Your task to perform on an android device: open app "ZOOM Cloud Meetings" (install if not already installed), go to login, and select forgot password Image 0: 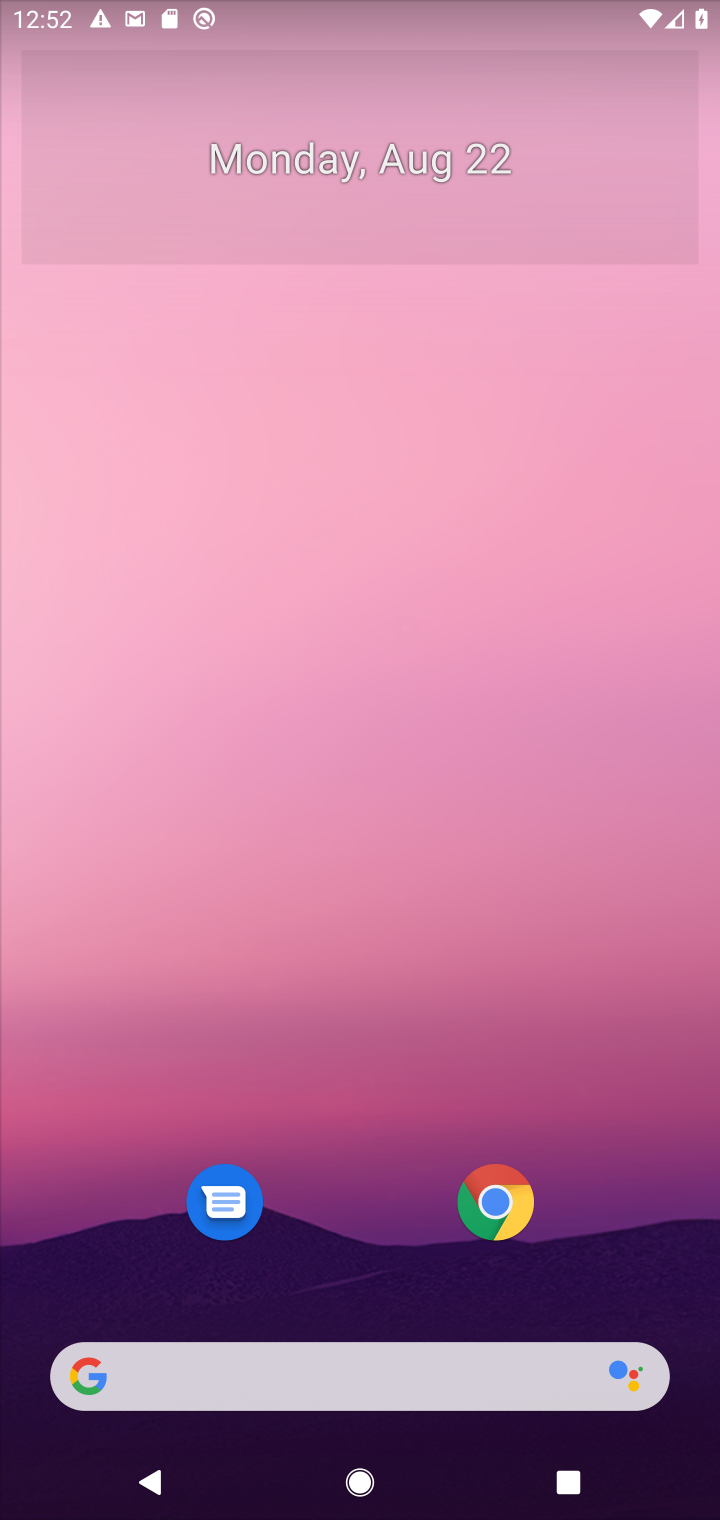
Step 0: drag from (436, 565) to (428, 247)
Your task to perform on an android device: open app "ZOOM Cloud Meetings" (install if not already installed), go to login, and select forgot password Image 1: 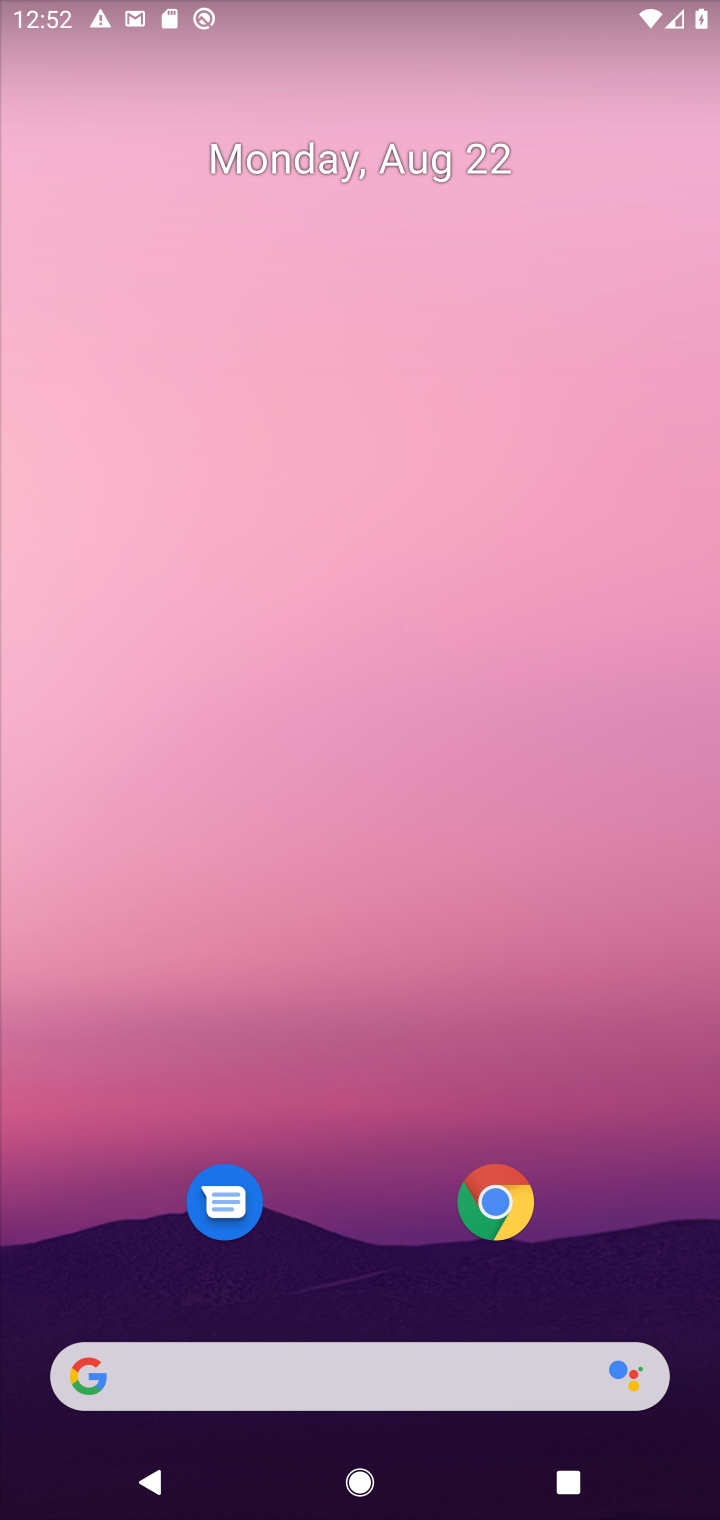
Step 1: drag from (354, 1326) to (409, 243)
Your task to perform on an android device: open app "ZOOM Cloud Meetings" (install if not already installed), go to login, and select forgot password Image 2: 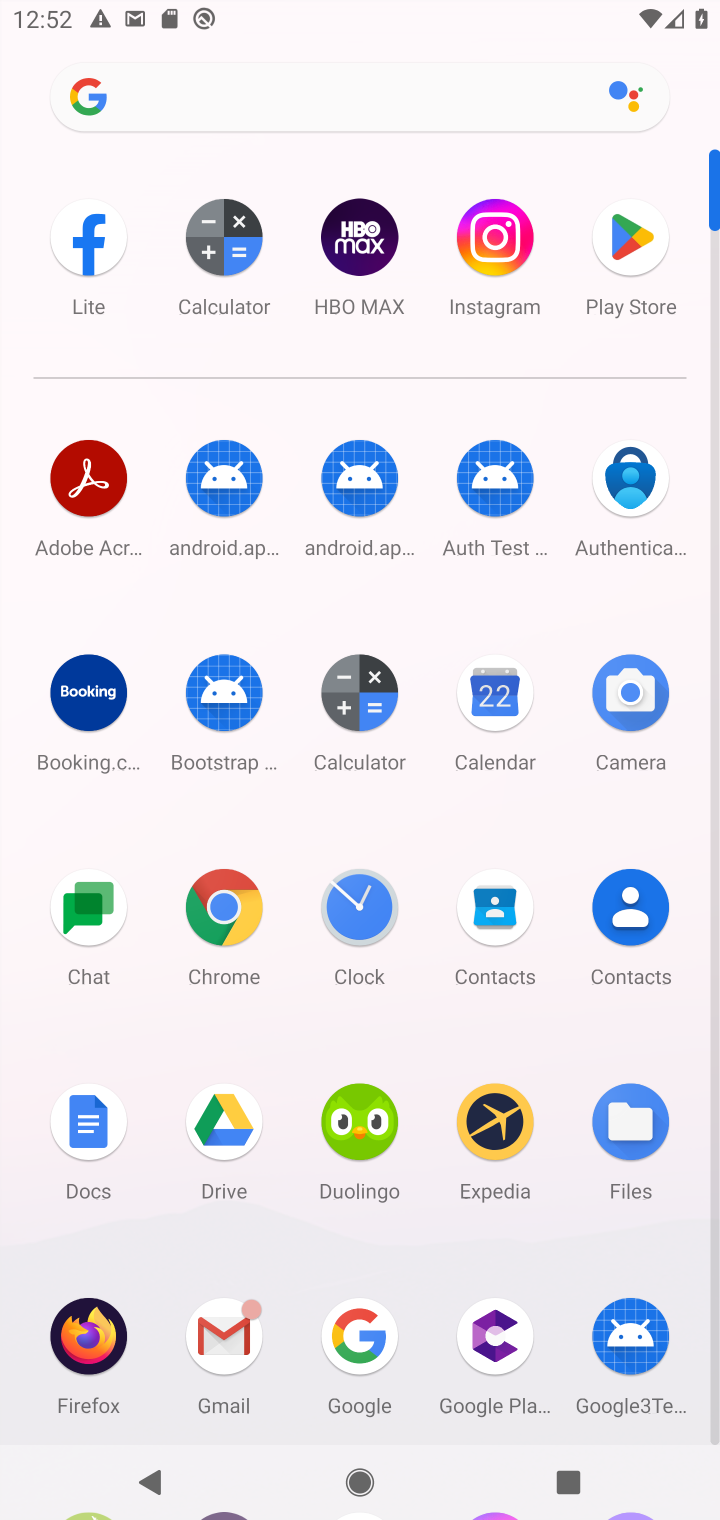
Step 2: click (629, 252)
Your task to perform on an android device: open app "ZOOM Cloud Meetings" (install if not already installed), go to login, and select forgot password Image 3: 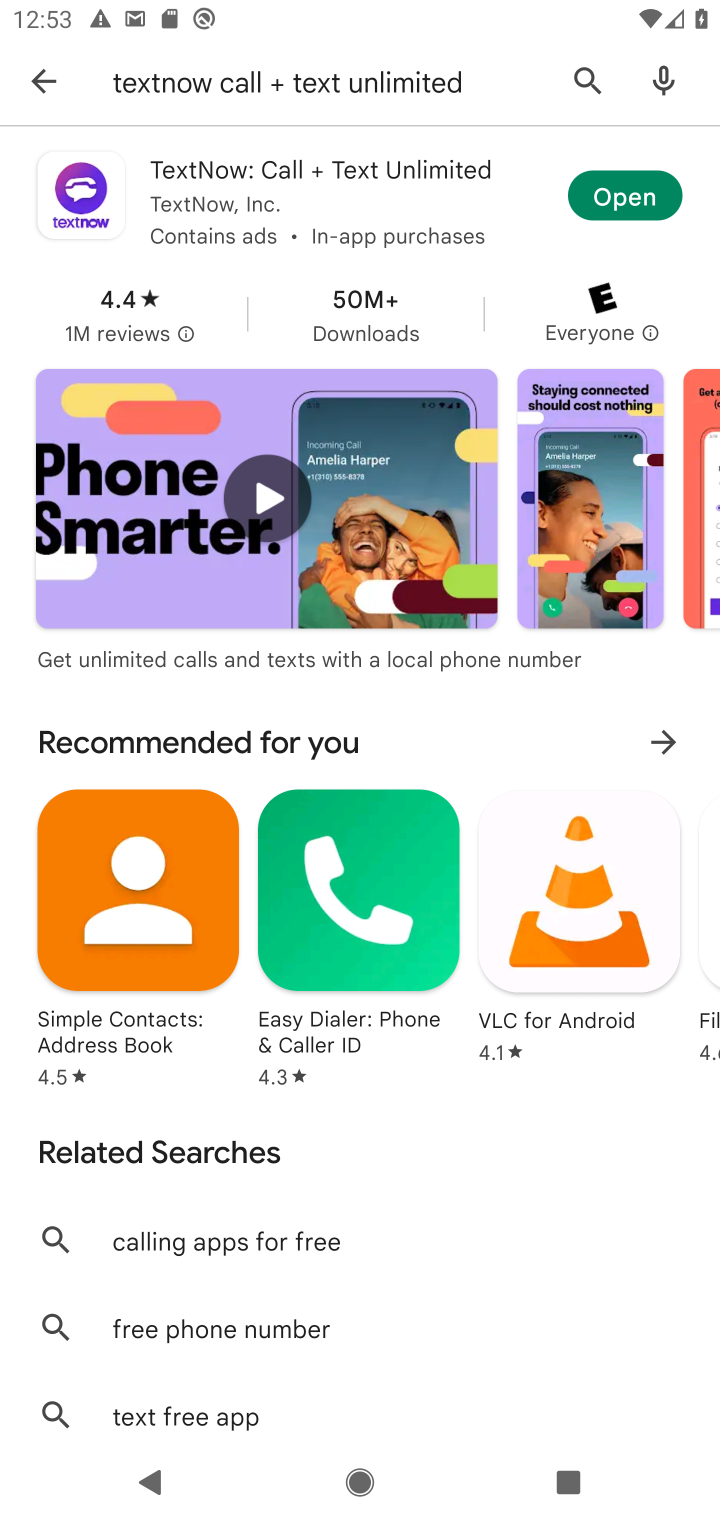
Step 3: click (581, 70)
Your task to perform on an android device: open app "ZOOM Cloud Meetings" (install if not already installed), go to login, and select forgot password Image 4: 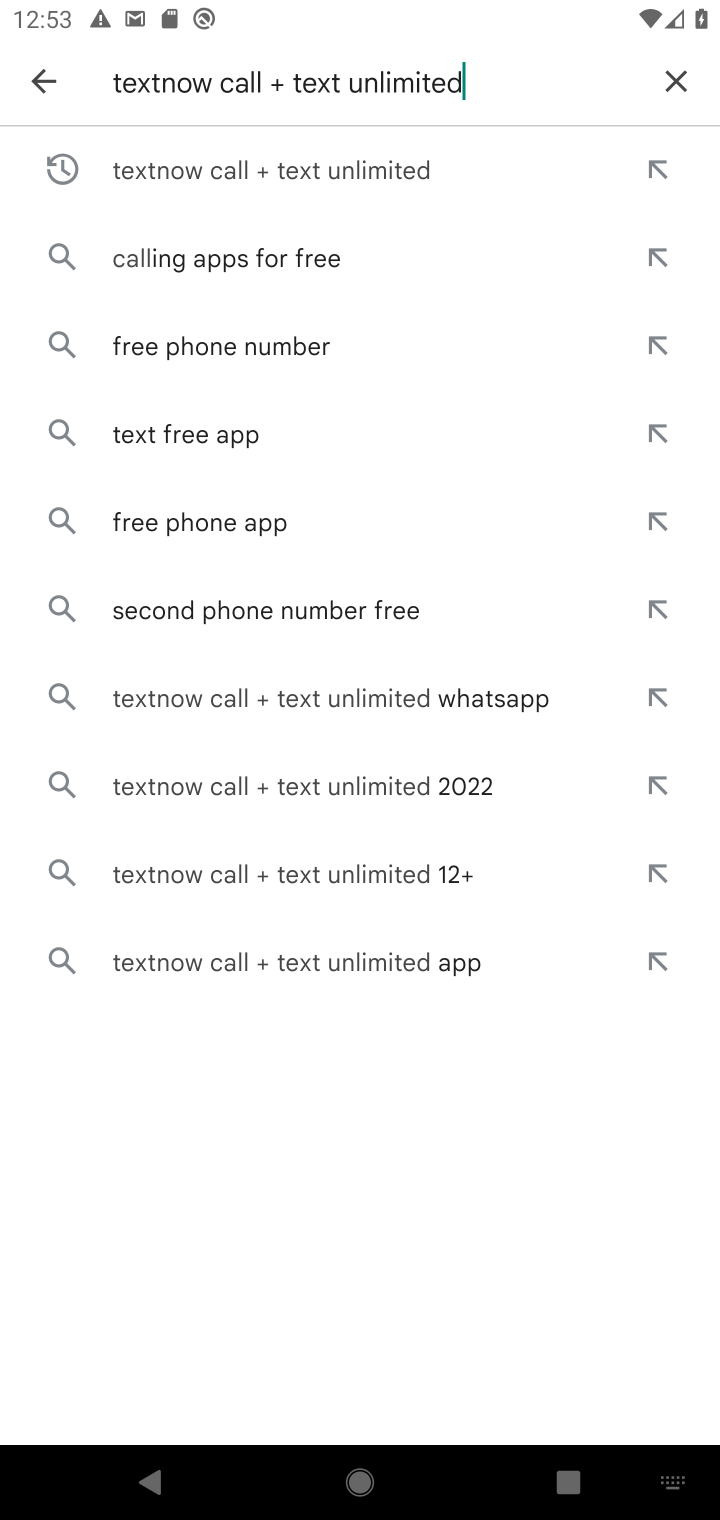
Step 4: click (664, 70)
Your task to perform on an android device: open app "ZOOM Cloud Meetings" (install if not already installed), go to login, and select forgot password Image 5: 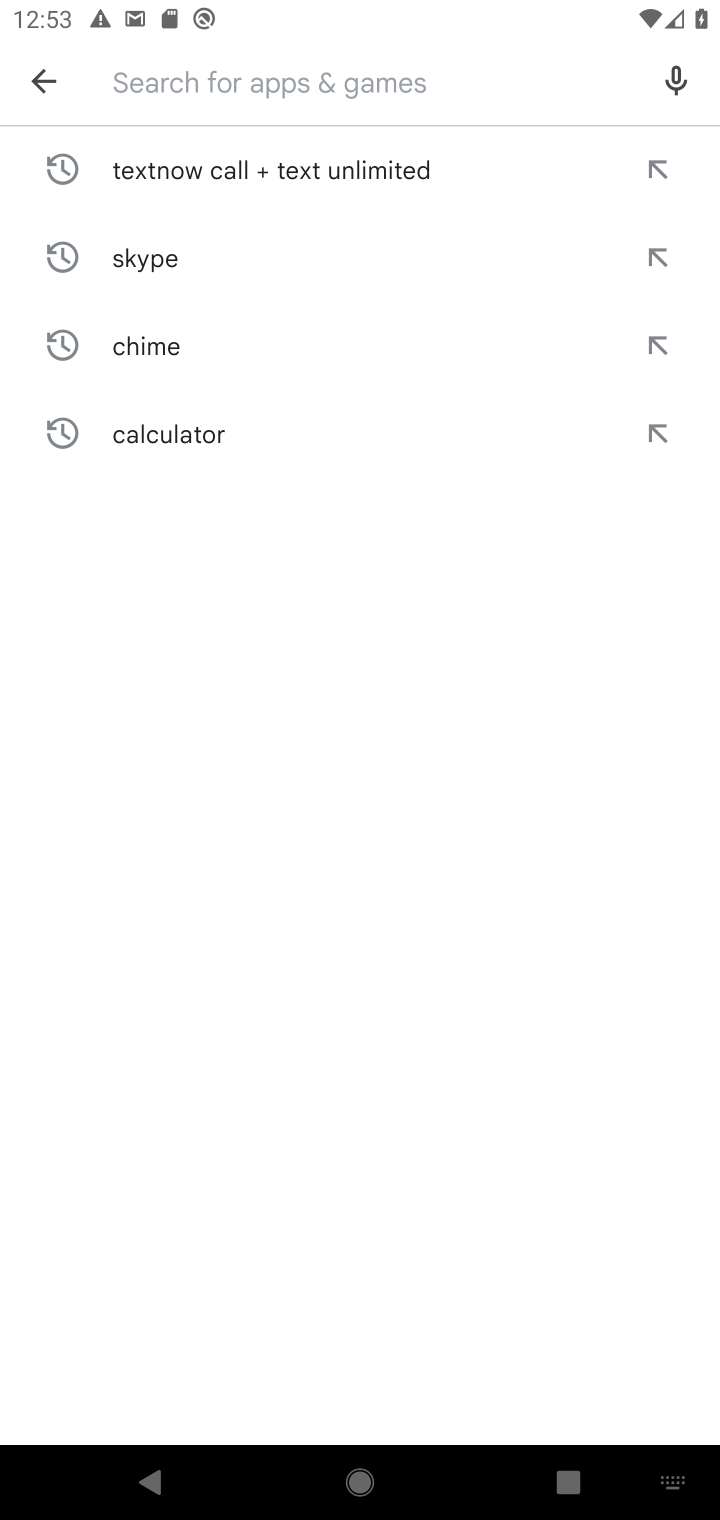
Step 5: type "ZOOM Cloud Meetings"
Your task to perform on an android device: open app "ZOOM Cloud Meetings" (install if not already installed), go to login, and select forgot password Image 6: 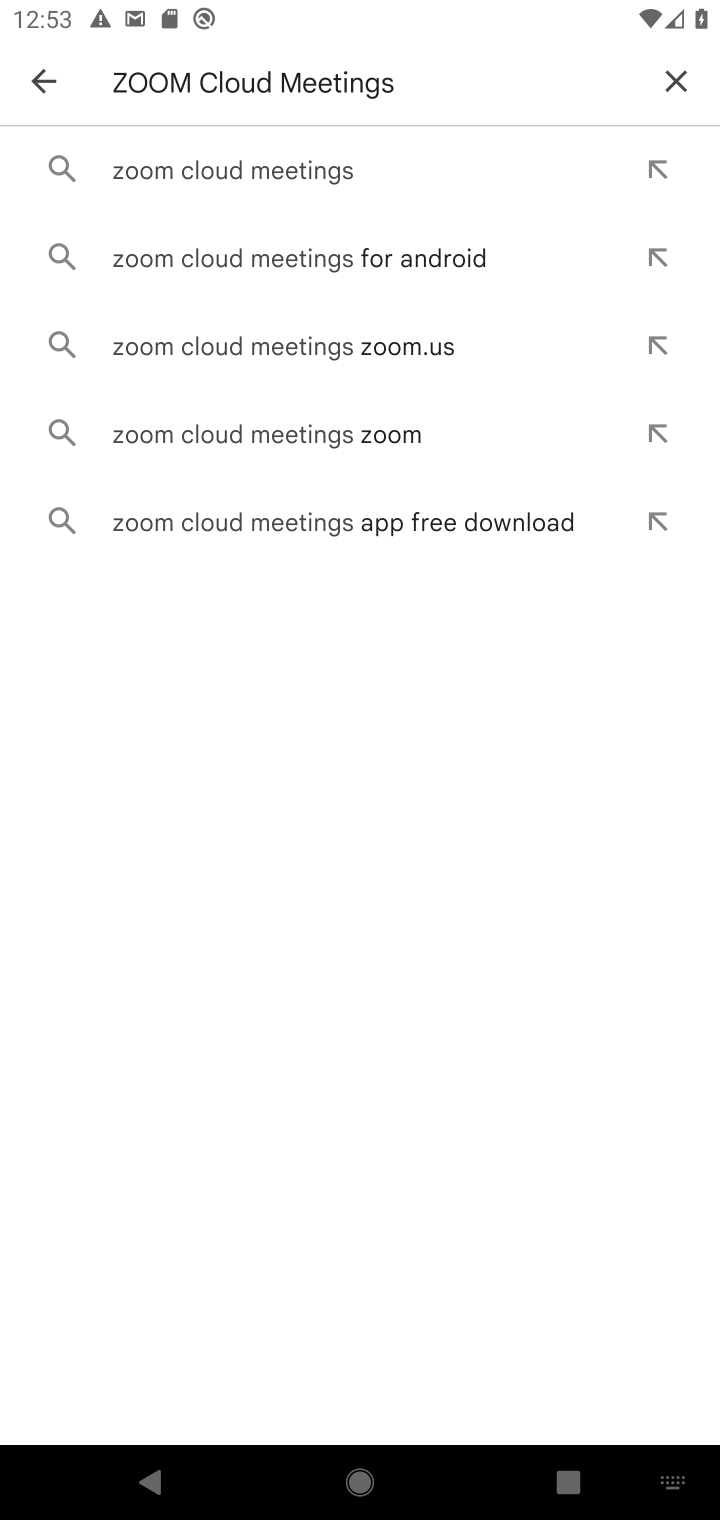
Step 6: click (287, 156)
Your task to perform on an android device: open app "ZOOM Cloud Meetings" (install if not already installed), go to login, and select forgot password Image 7: 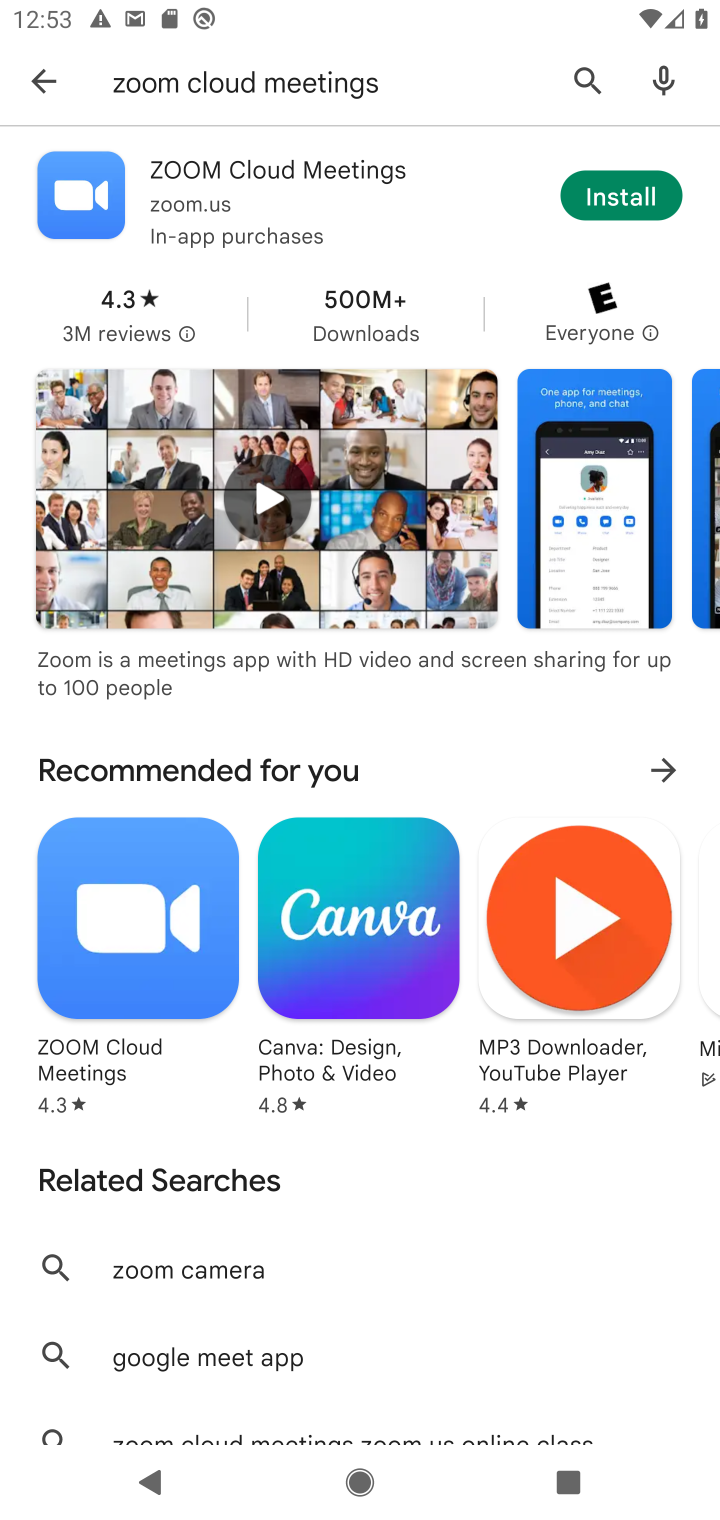
Step 7: click (619, 196)
Your task to perform on an android device: open app "ZOOM Cloud Meetings" (install if not already installed), go to login, and select forgot password Image 8: 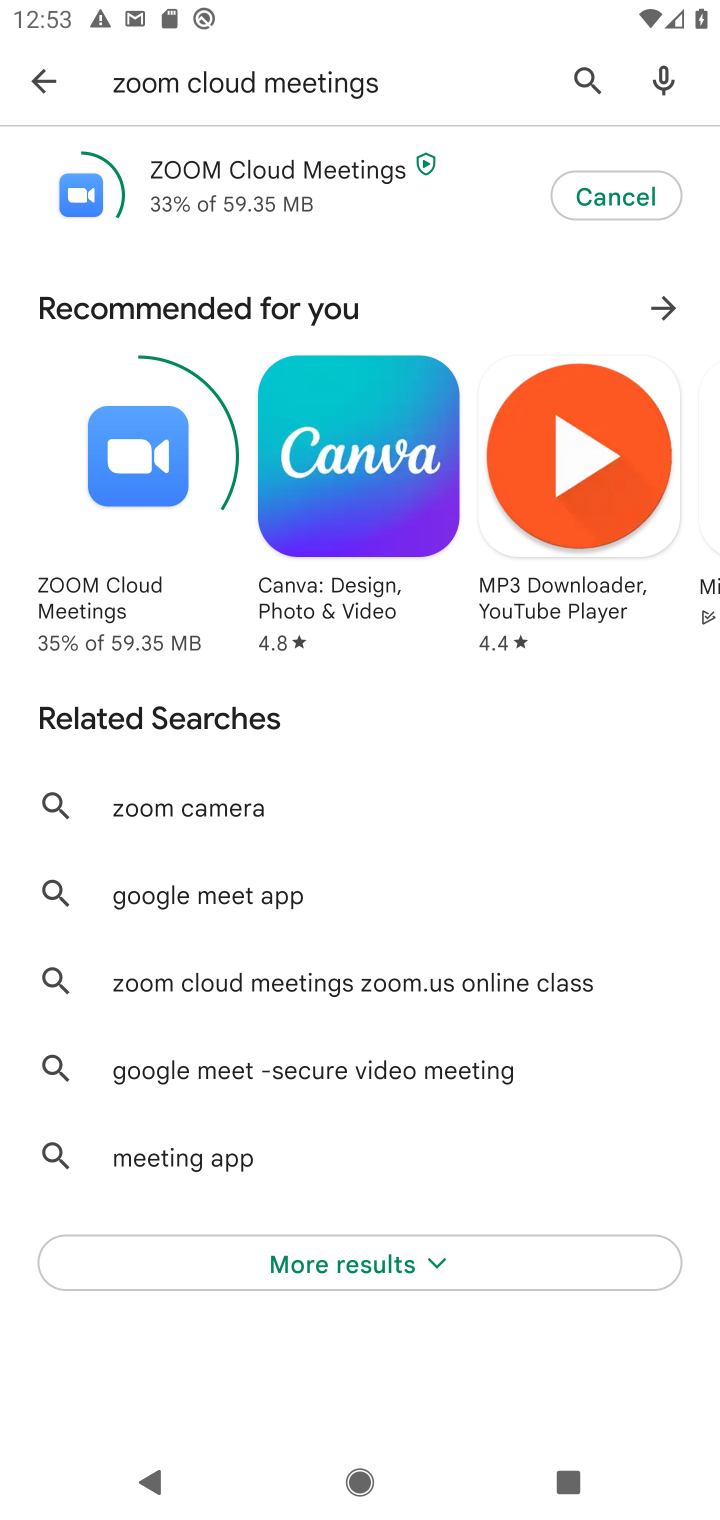
Step 8: click (619, 196)
Your task to perform on an android device: open app "ZOOM Cloud Meetings" (install if not already installed), go to login, and select forgot password Image 9: 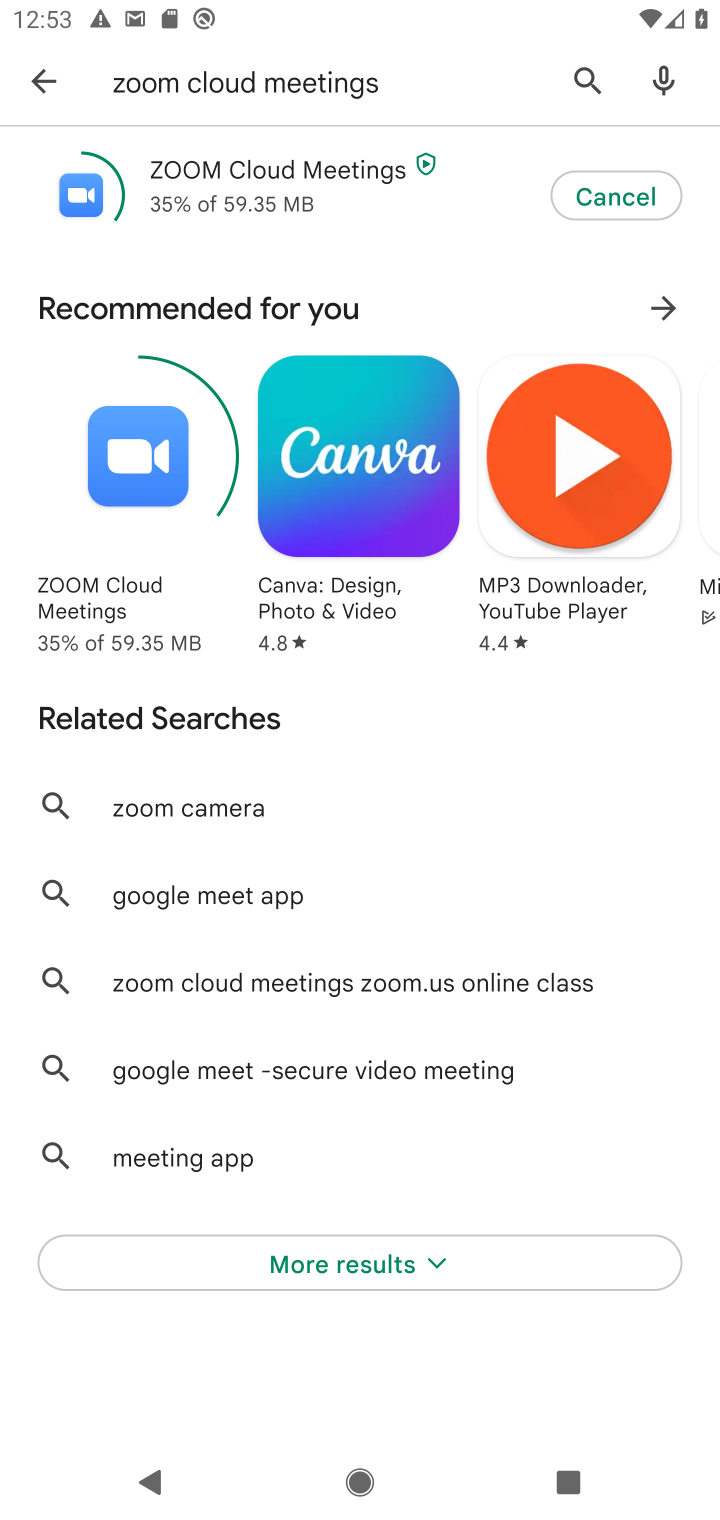
Step 9: click (619, 196)
Your task to perform on an android device: open app "ZOOM Cloud Meetings" (install if not already installed), go to login, and select forgot password Image 10: 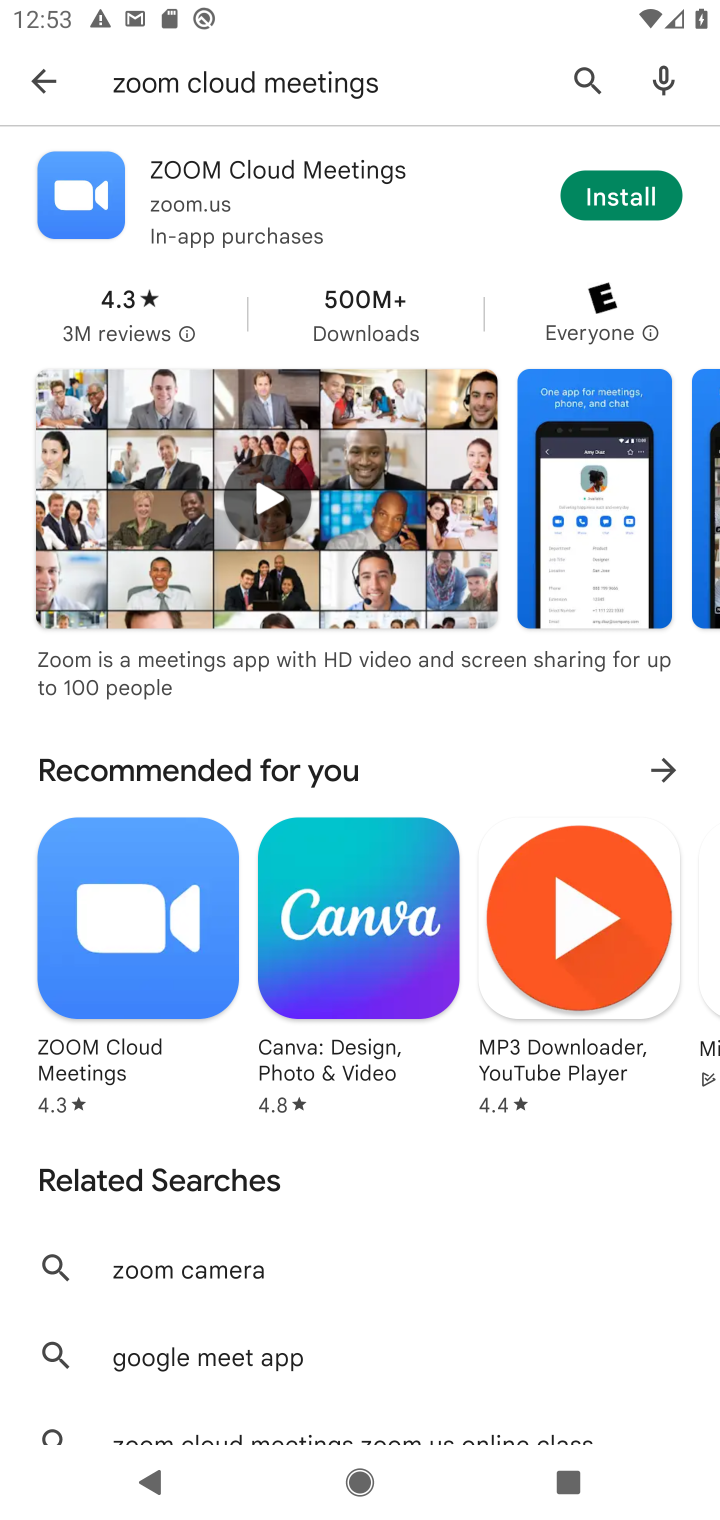
Step 10: click (619, 196)
Your task to perform on an android device: open app "ZOOM Cloud Meetings" (install if not already installed), go to login, and select forgot password Image 11: 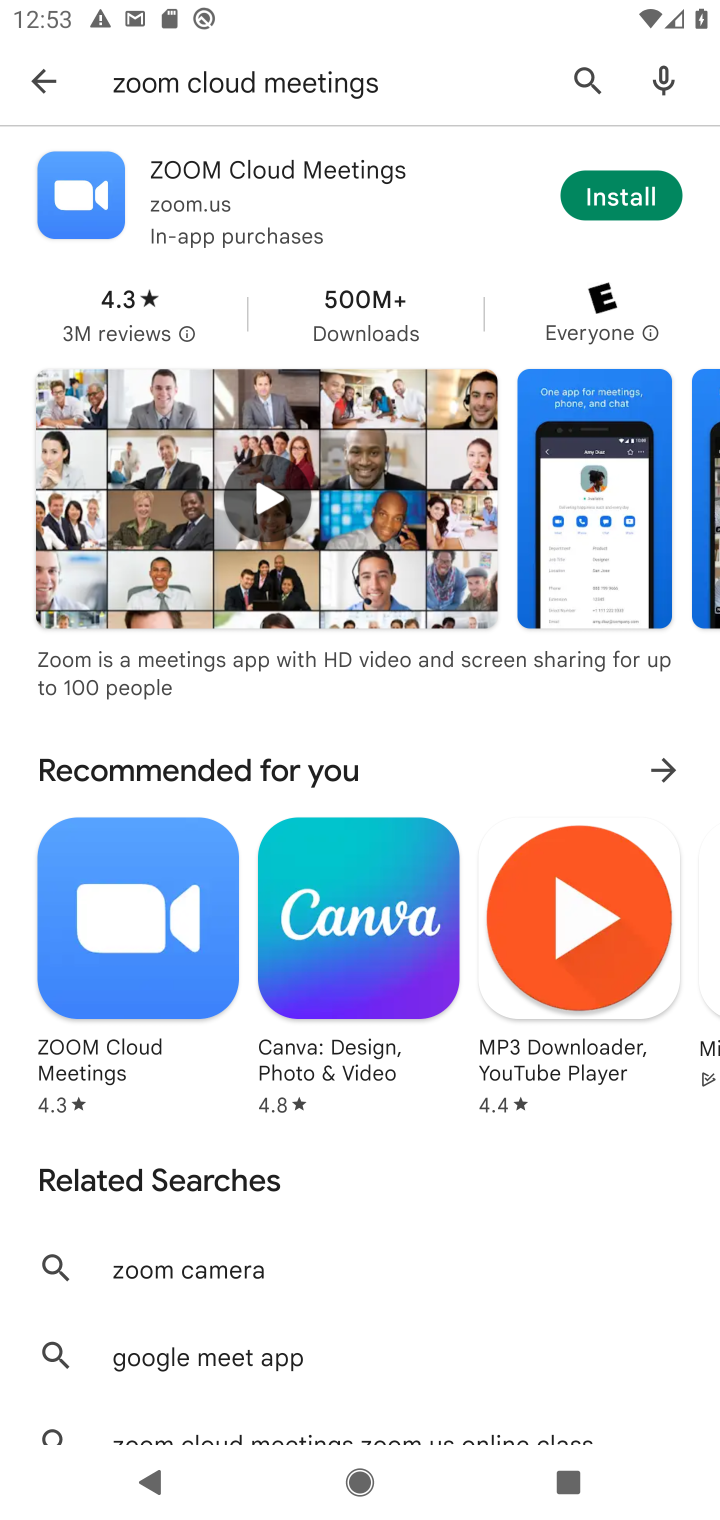
Step 11: click (619, 196)
Your task to perform on an android device: open app "ZOOM Cloud Meetings" (install if not already installed), go to login, and select forgot password Image 12: 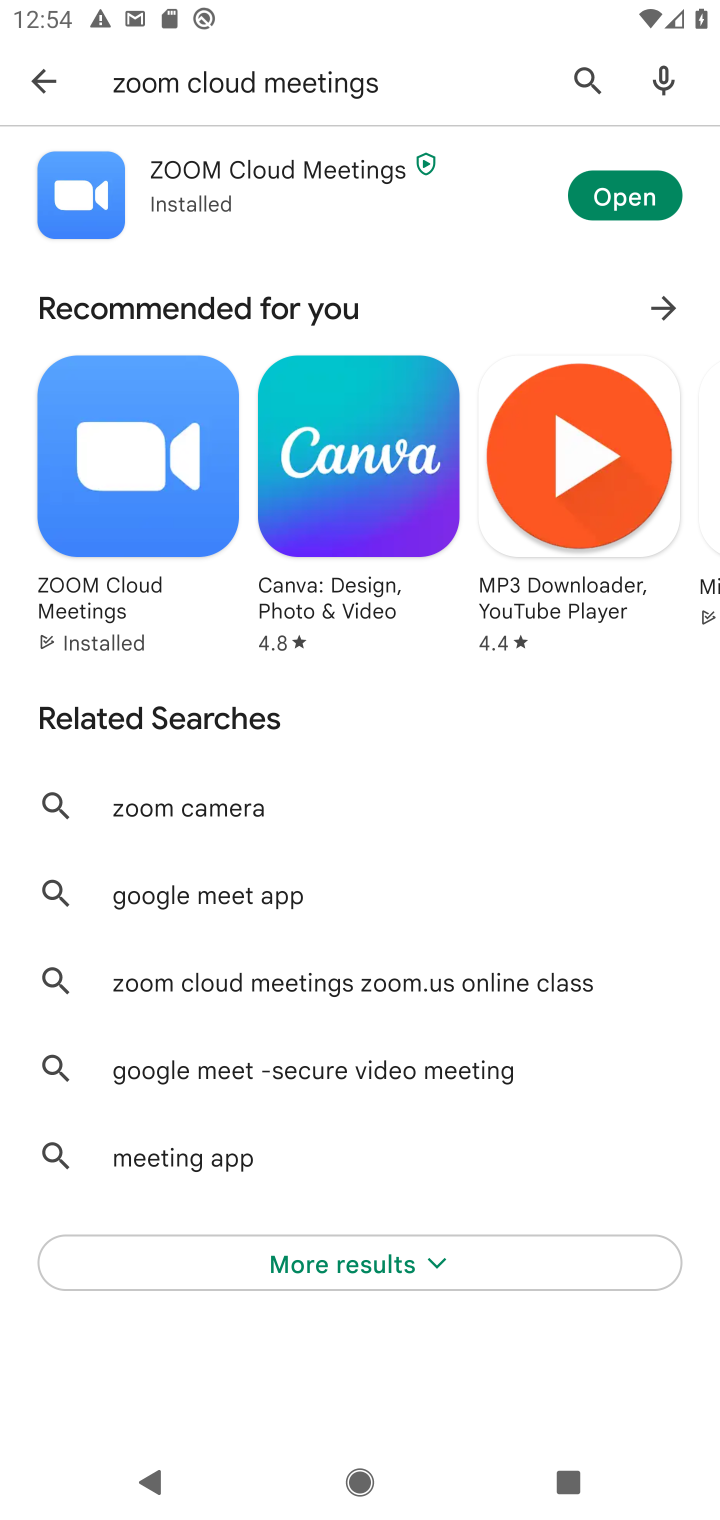
Step 12: click (614, 193)
Your task to perform on an android device: open app "ZOOM Cloud Meetings" (install if not already installed), go to login, and select forgot password Image 13: 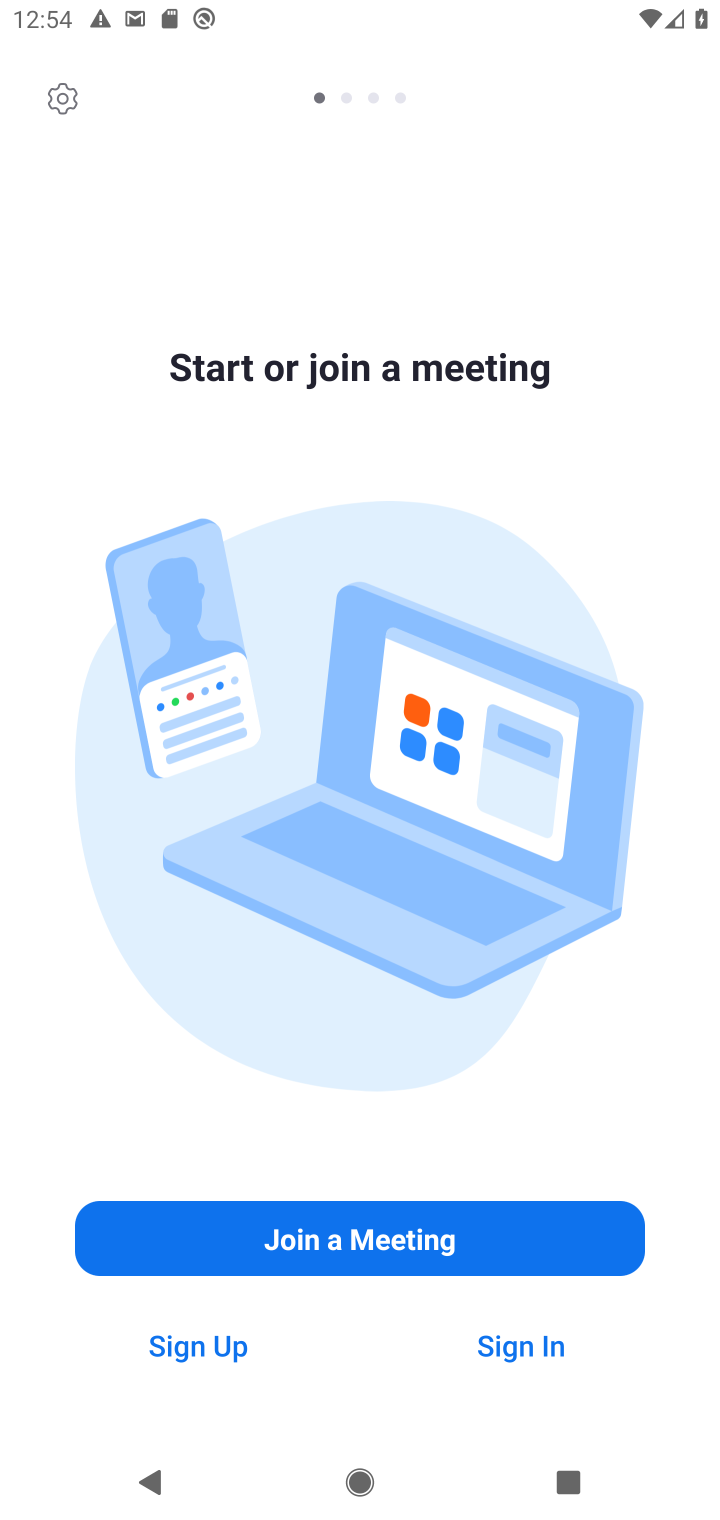
Step 13: click (536, 1339)
Your task to perform on an android device: open app "ZOOM Cloud Meetings" (install if not already installed), go to login, and select forgot password Image 14: 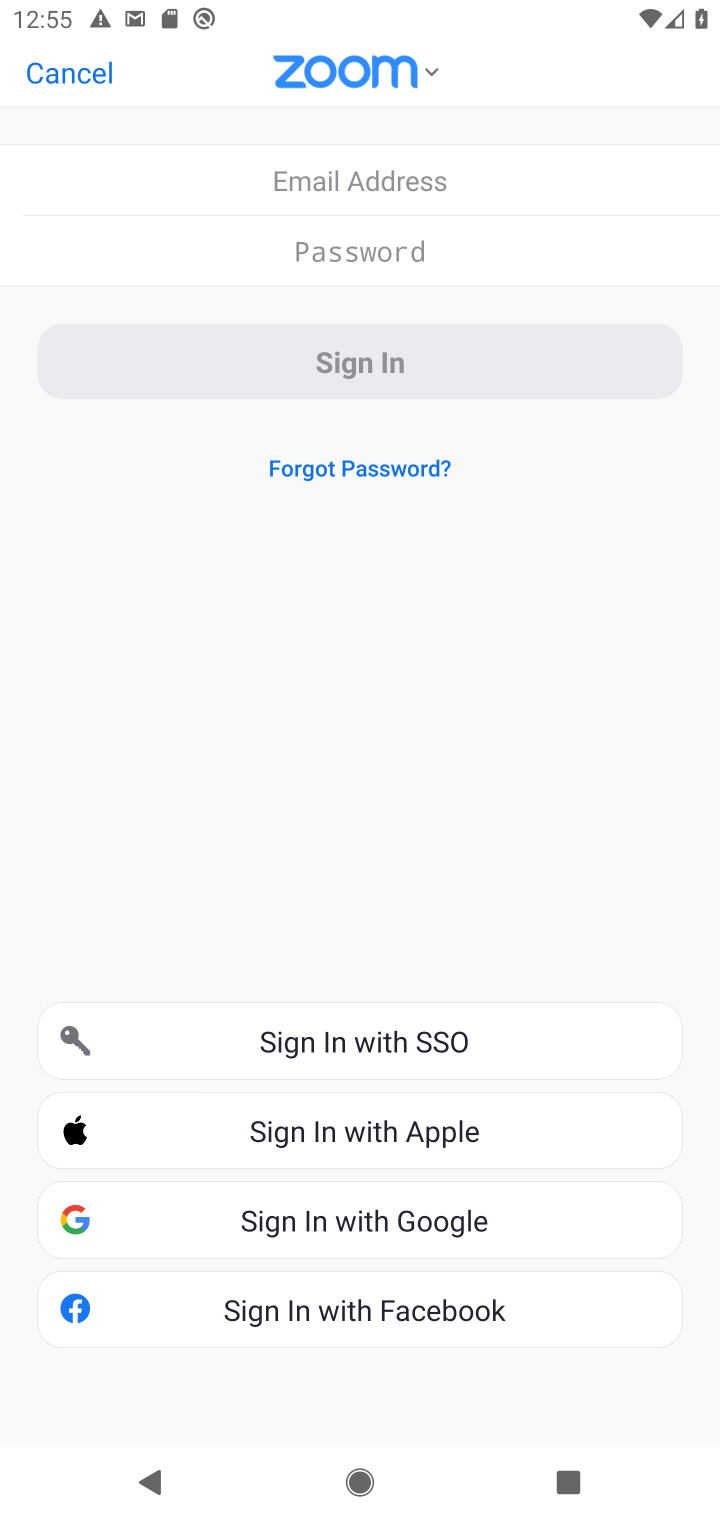
Step 14: click (325, 474)
Your task to perform on an android device: open app "ZOOM Cloud Meetings" (install if not already installed), go to login, and select forgot password Image 15: 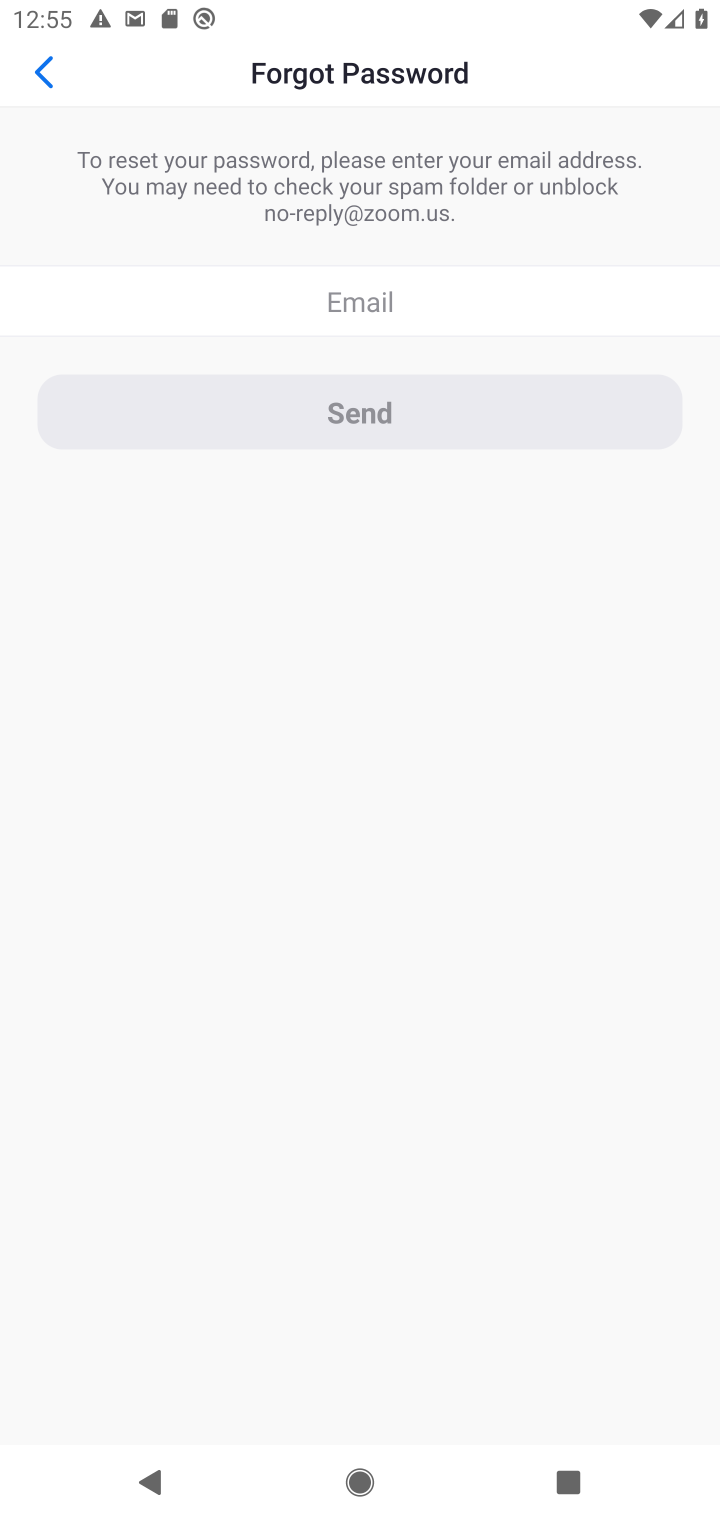
Step 15: task complete